Your task to perform on an android device: turn on sleep mode Image 0: 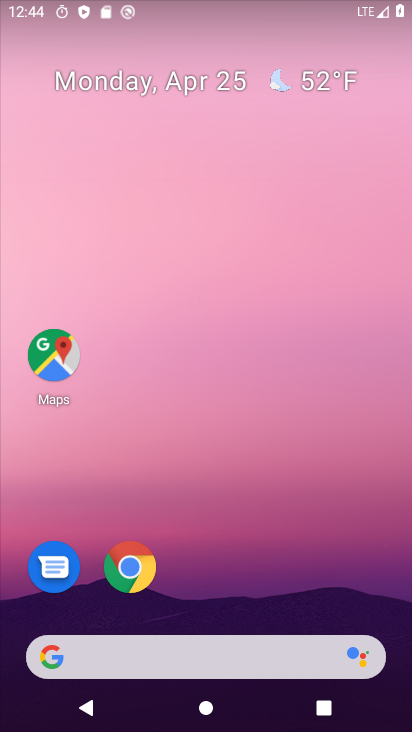
Step 0: drag from (319, 543) to (306, 0)
Your task to perform on an android device: turn on sleep mode Image 1: 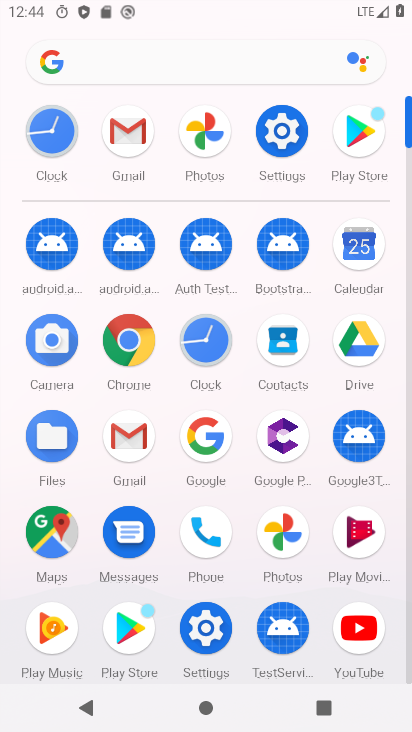
Step 1: click (290, 121)
Your task to perform on an android device: turn on sleep mode Image 2: 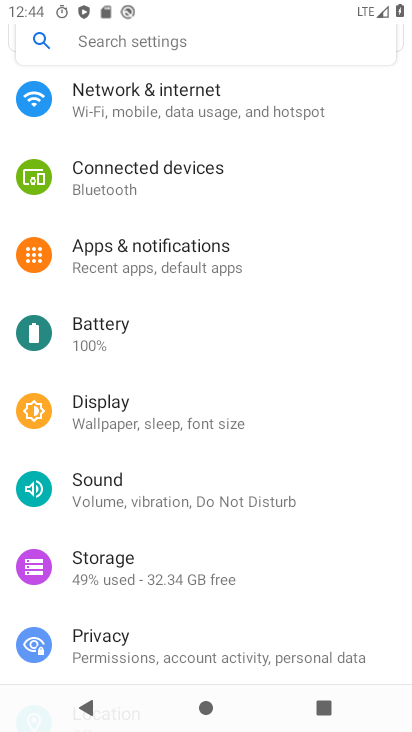
Step 2: click (199, 412)
Your task to perform on an android device: turn on sleep mode Image 3: 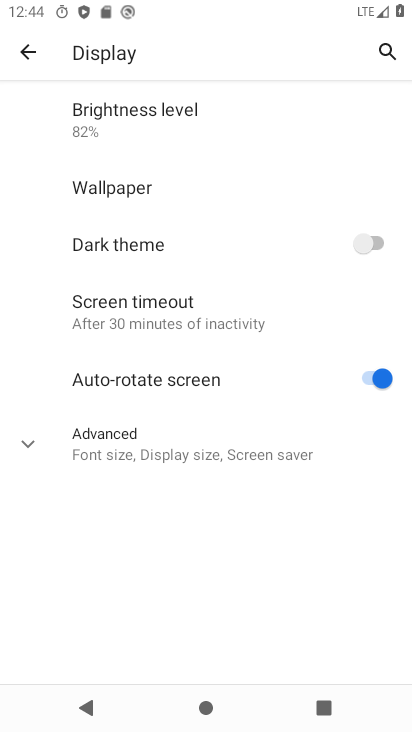
Step 3: click (28, 438)
Your task to perform on an android device: turn on sleep mode Image 4: 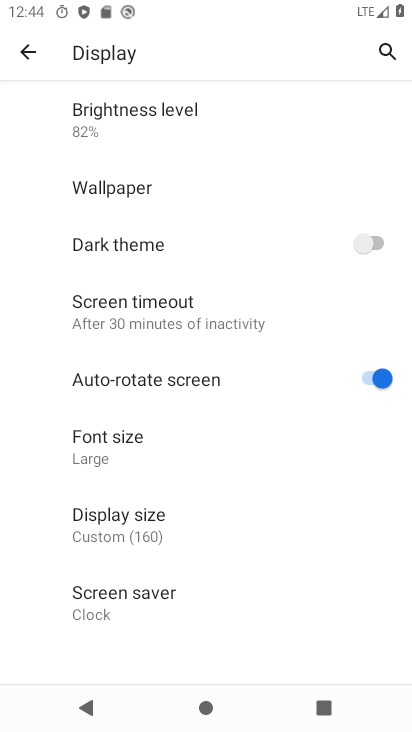
Step 4: task complete